Your task to perform on an android device: Do I have any events tomorrow? Image 0: 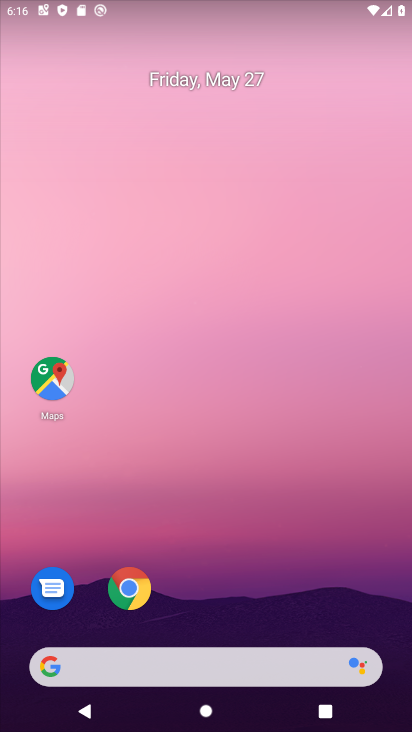
Step 0: drag from (284, 589) to (279, 157)
Your task to perform on an android device: Do I have any events tomorrow? Image 1: 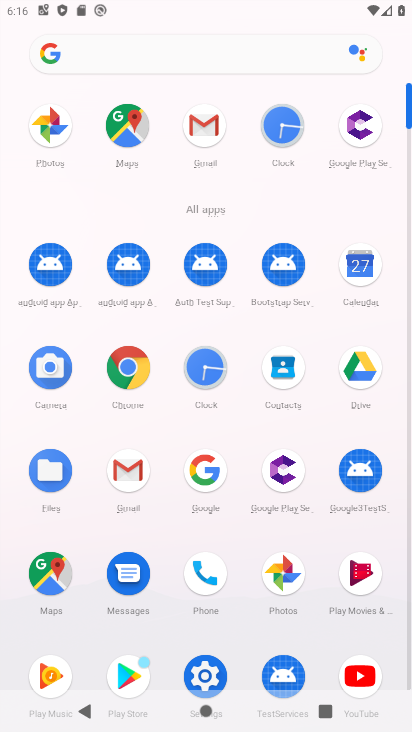
Step 1: click (370, 252)
Your task to perform on an android device: Do I have any events tomorrow? Image 2: 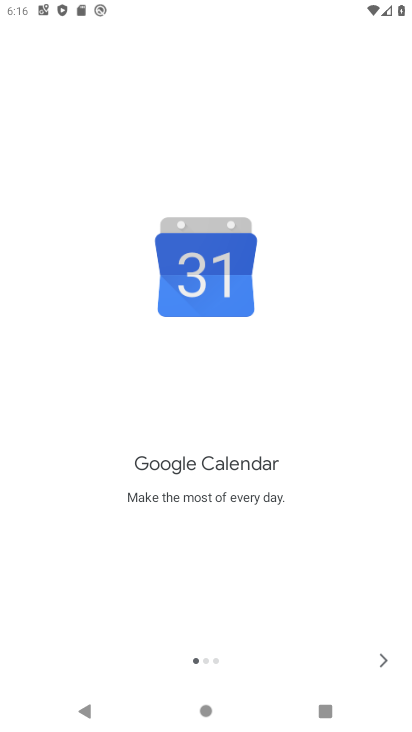
Step 2: click (379, 653)
Your task to perform on an android device: Do I have any events tomorrow? Image 3: 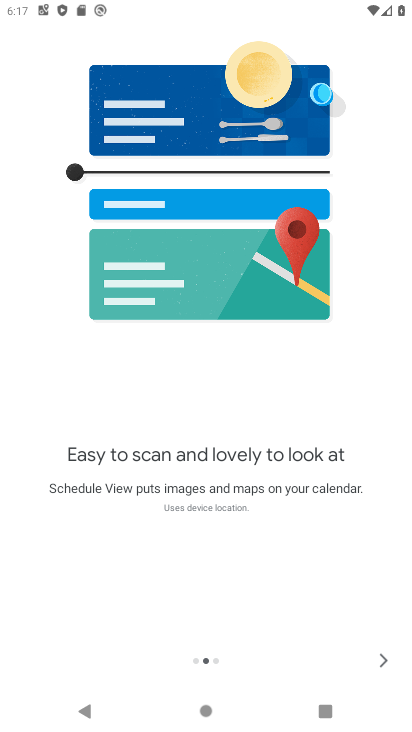
Step 3: click (379, 653)
Your task to perform on an android device: Do I have any events tomorrow? Image 4: 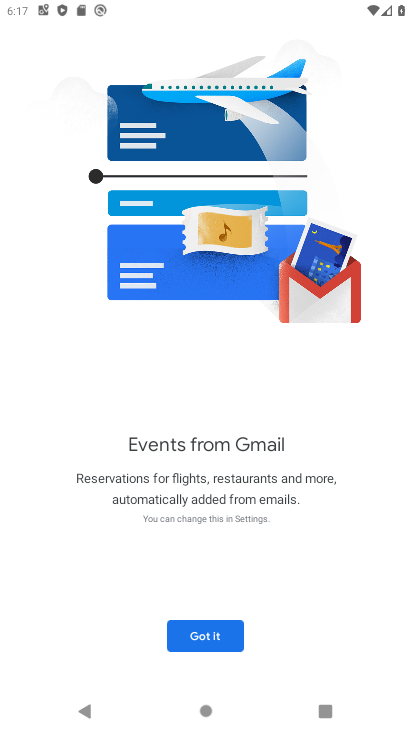
Step 4: click (213, 623)
Your task to perform on an android device: Do I have any events tomorrow? Image 5: 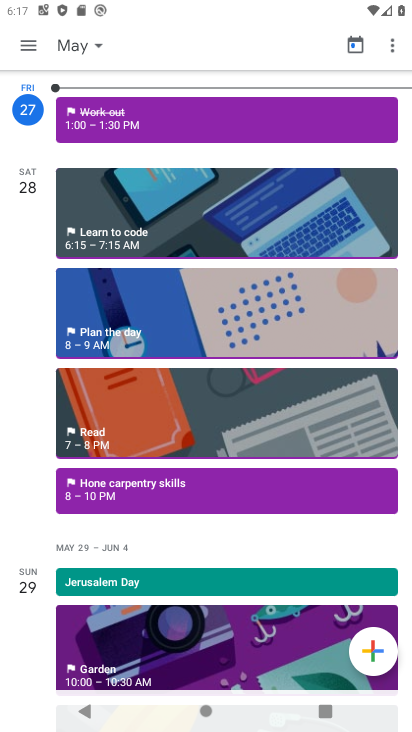
Step 5: task complete